Your task to perform on an android device: Go to notification settings Image 0: 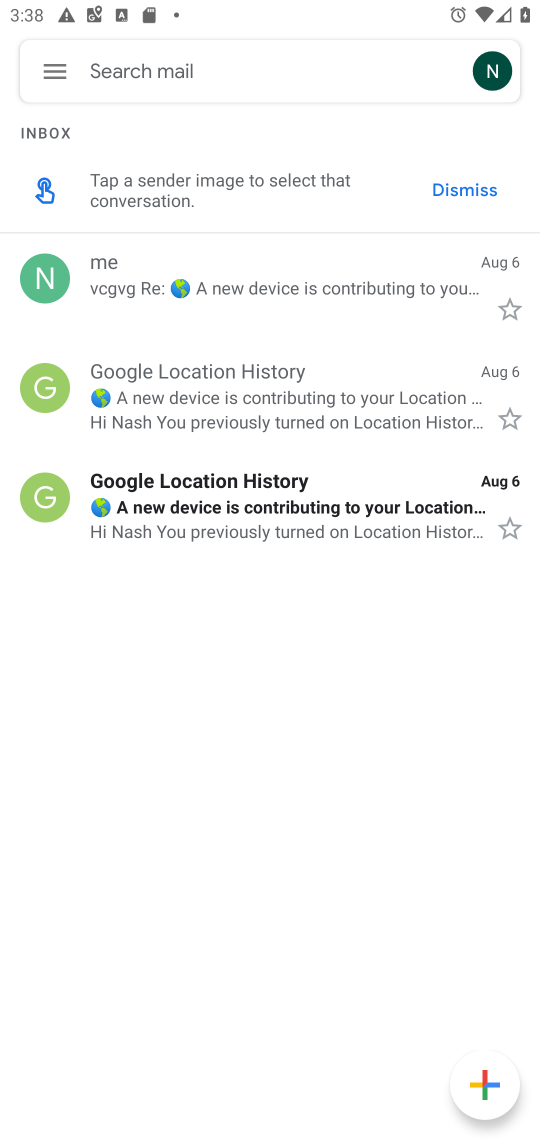
Step 0: click (58, 58)
Your task to perform on an android device: Go to notification settings Image 1: 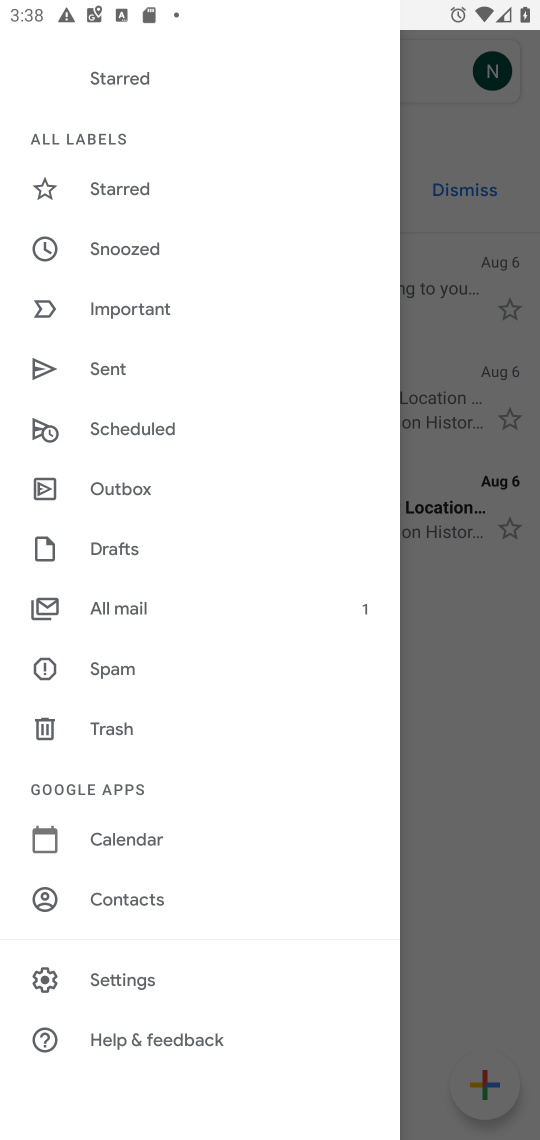
Step 1: click (129, 976)
Your task to perform on an android device: Go to notification settings Image 2: 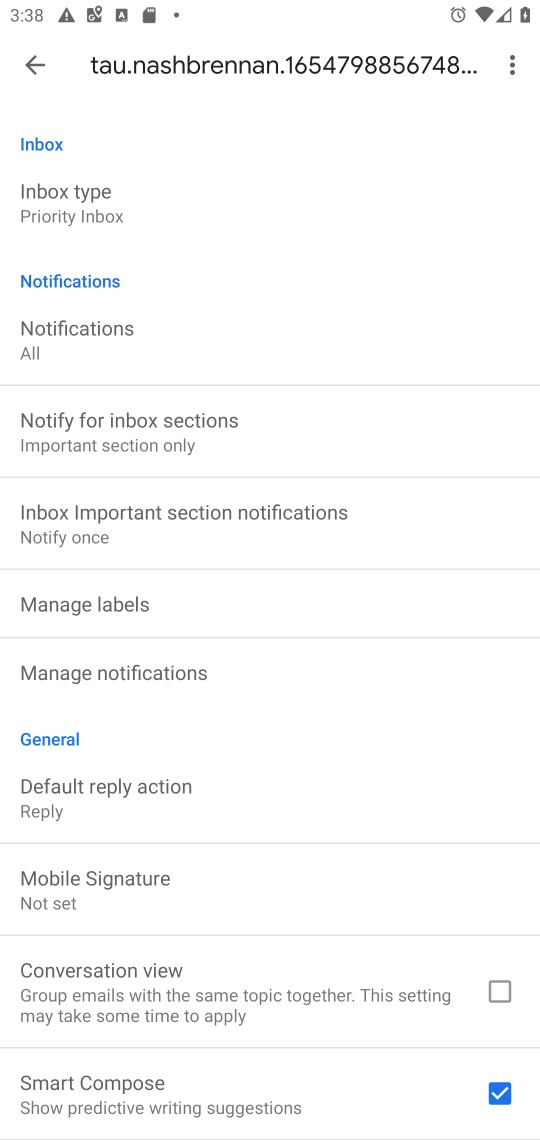
Step 2: click (134, 665)
Your task to perform on an android device: Go to notification settings Image 3: 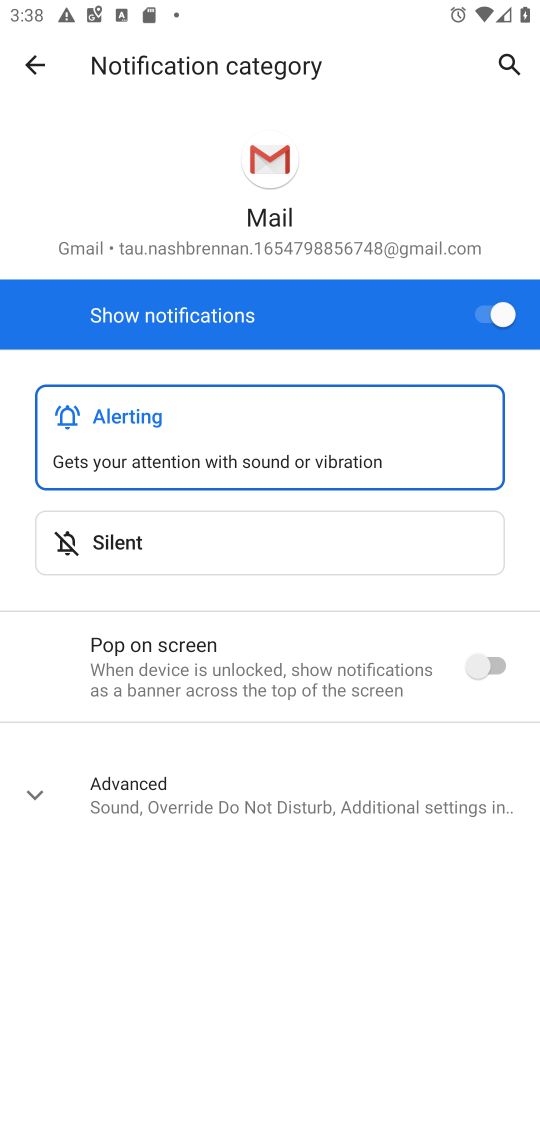
Step 3: task complete